Your task to perform on an android device: toggle priority inbox in the gmail app Image 0: 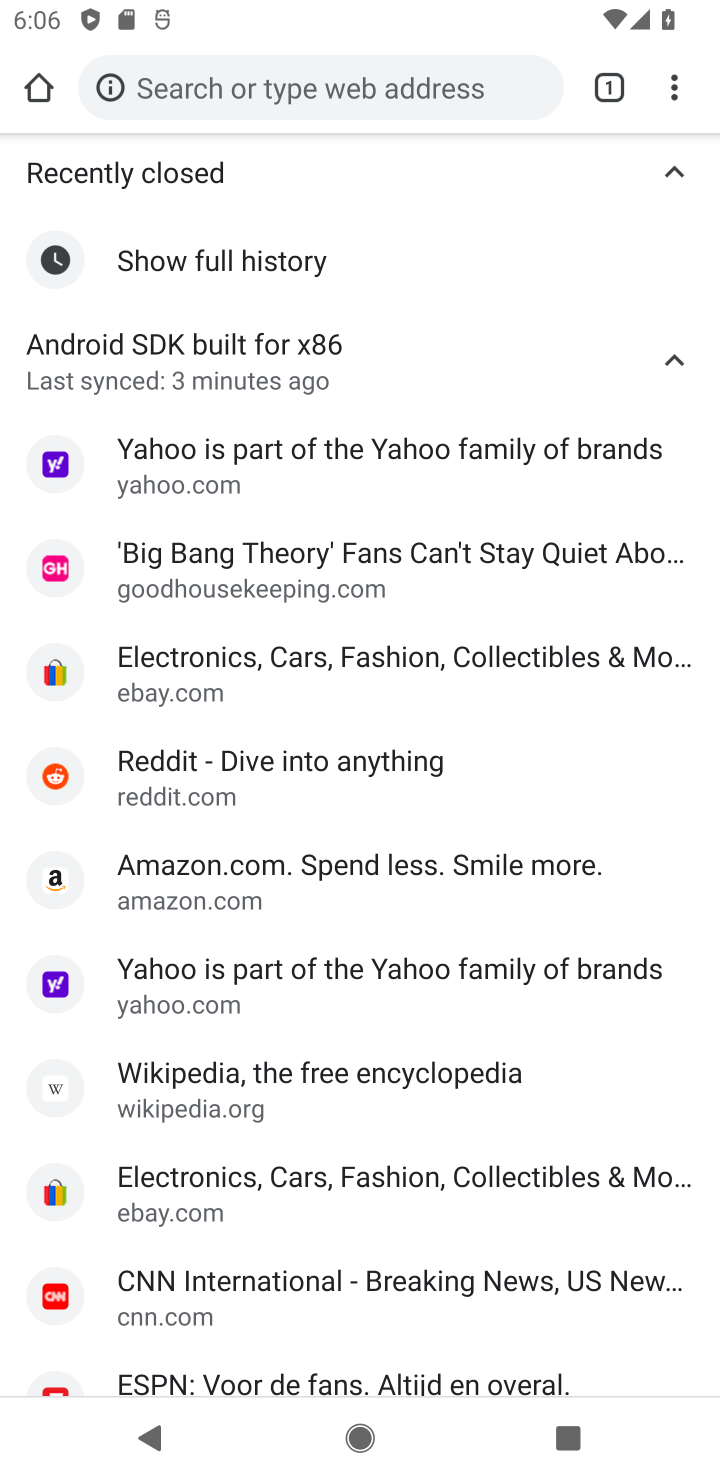
Step 0: press home button
Your task to perform on an android device: toggle priority inbox in the gmail app Image 1: 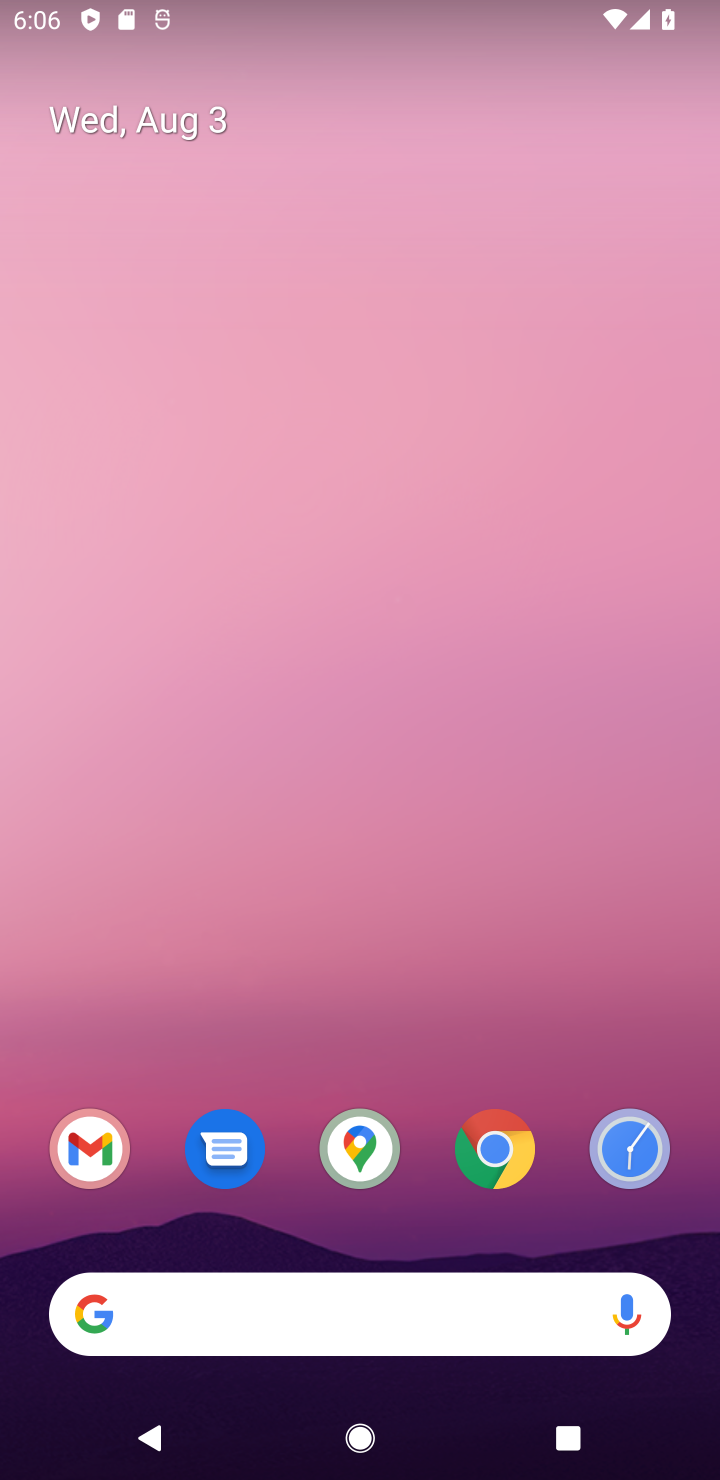
Step 1: click (94, 1144)
Your task to perform on an android device: toggle priority inbox in the gmail app Image 2: 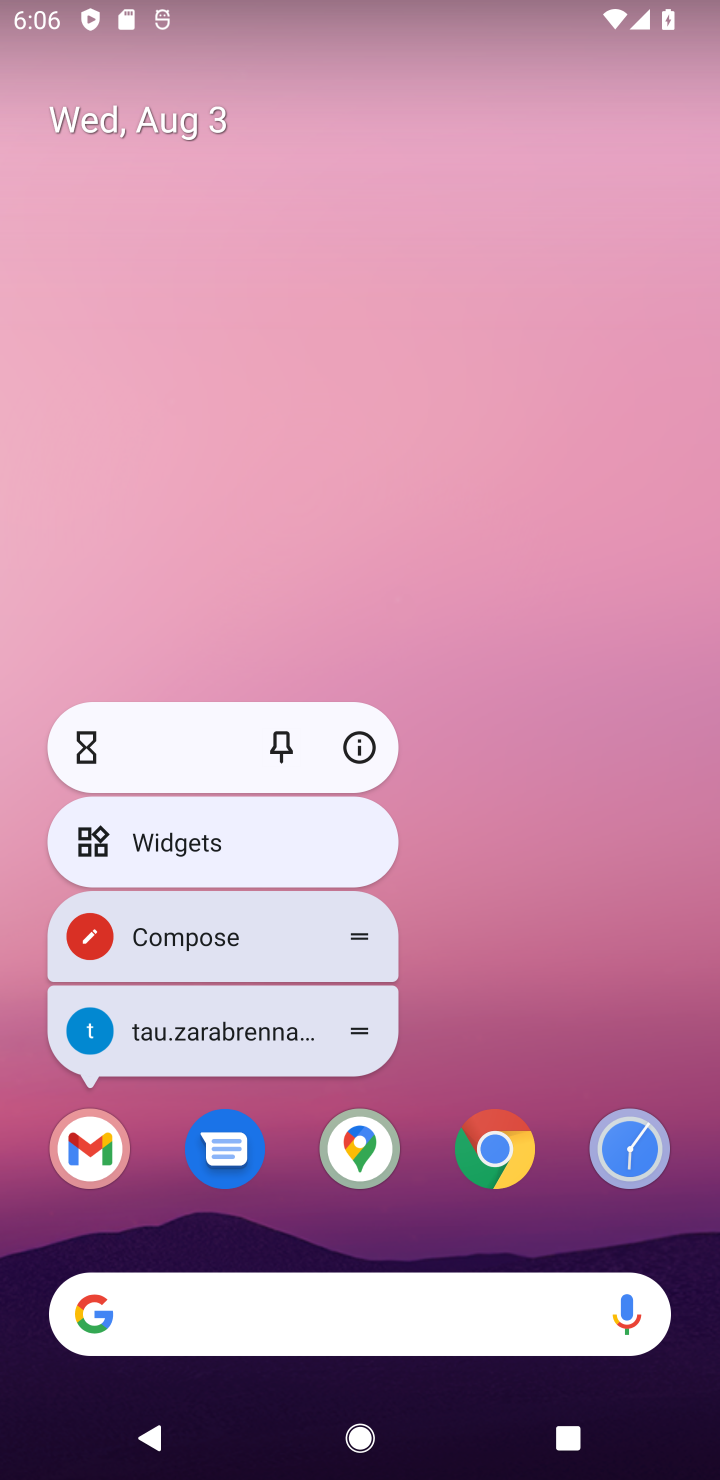
Step 2: click (96, 1146)
Your task to perform on an android device: toggle priority inbox in the gmail app Image 3: 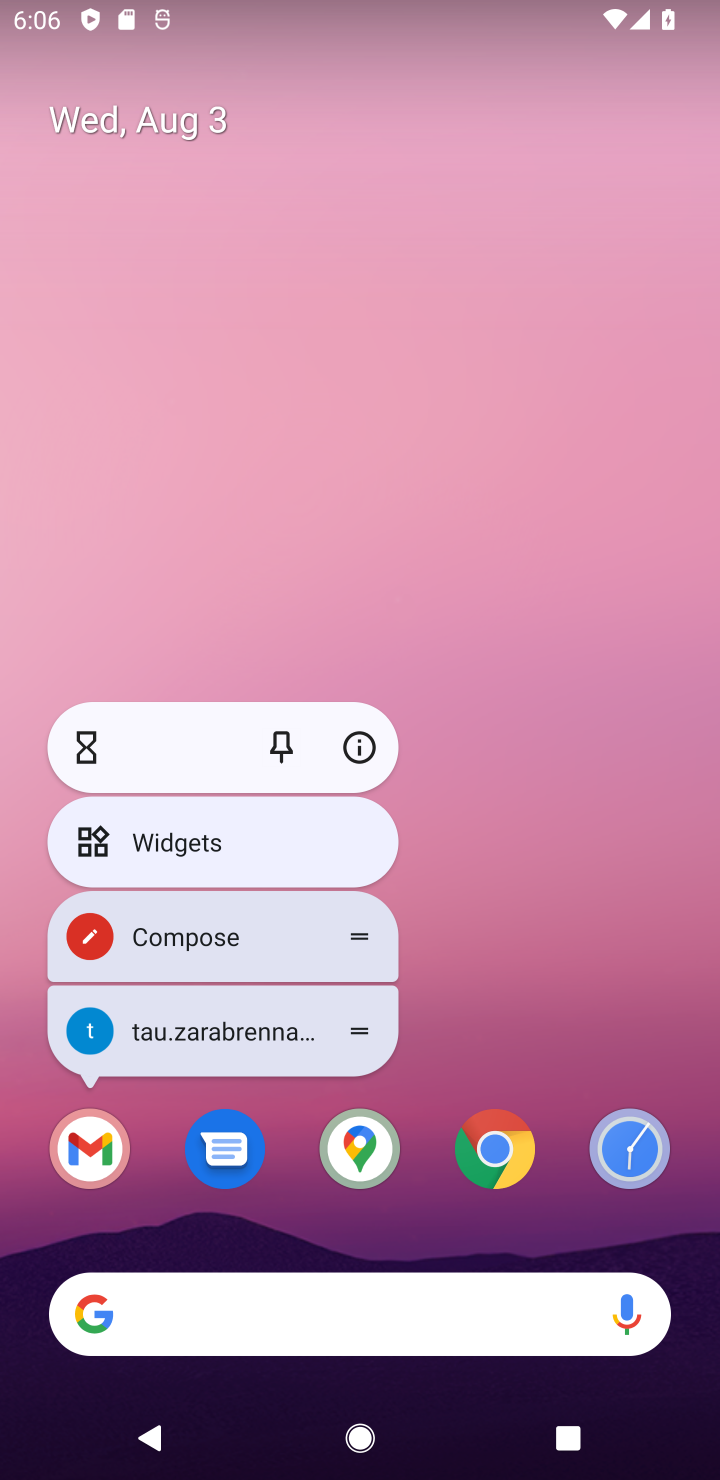
Step 3: click (96, 1146)
Your task to perform on an android device: toggle priority inbox in the gmail app Image 4: 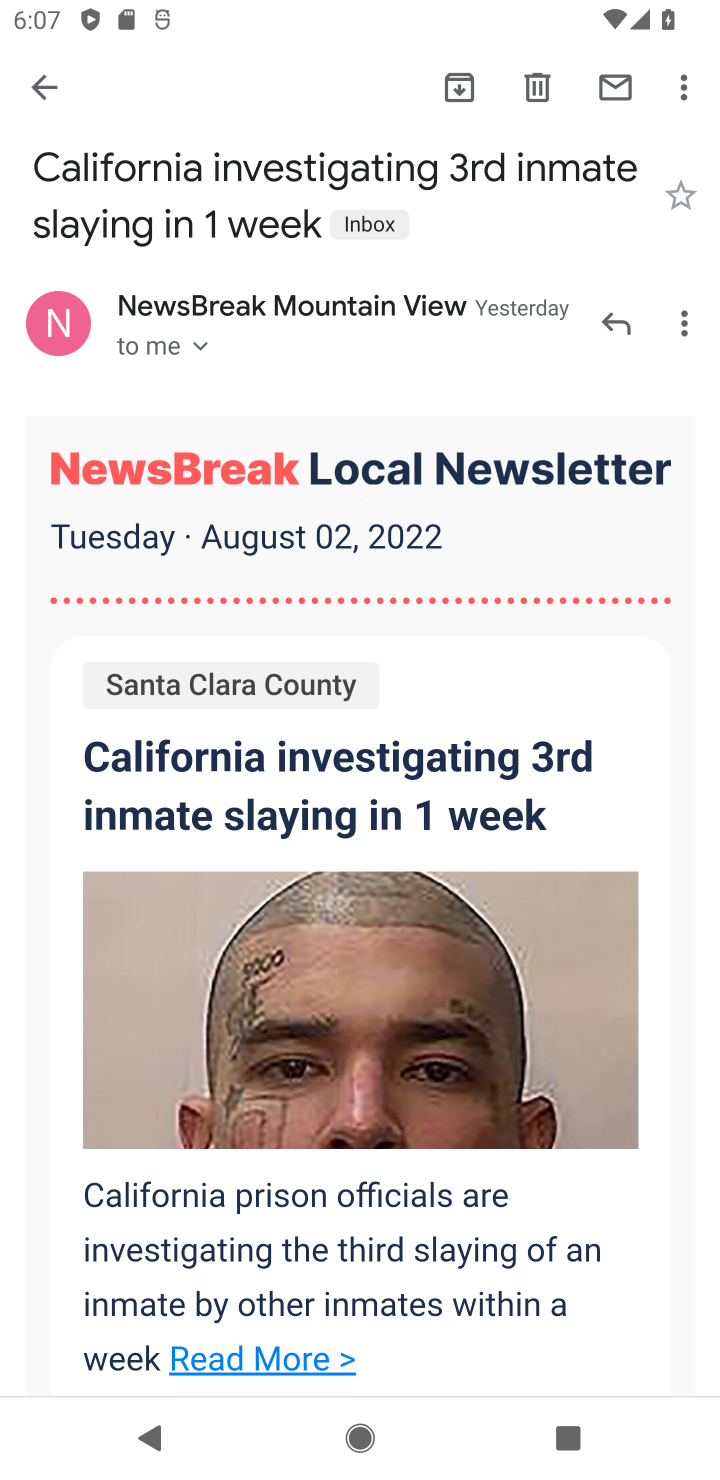
Step 4: click (35, 93)
Your task to perform on an android device: toggle priority inbox in the gmail app Image 5: 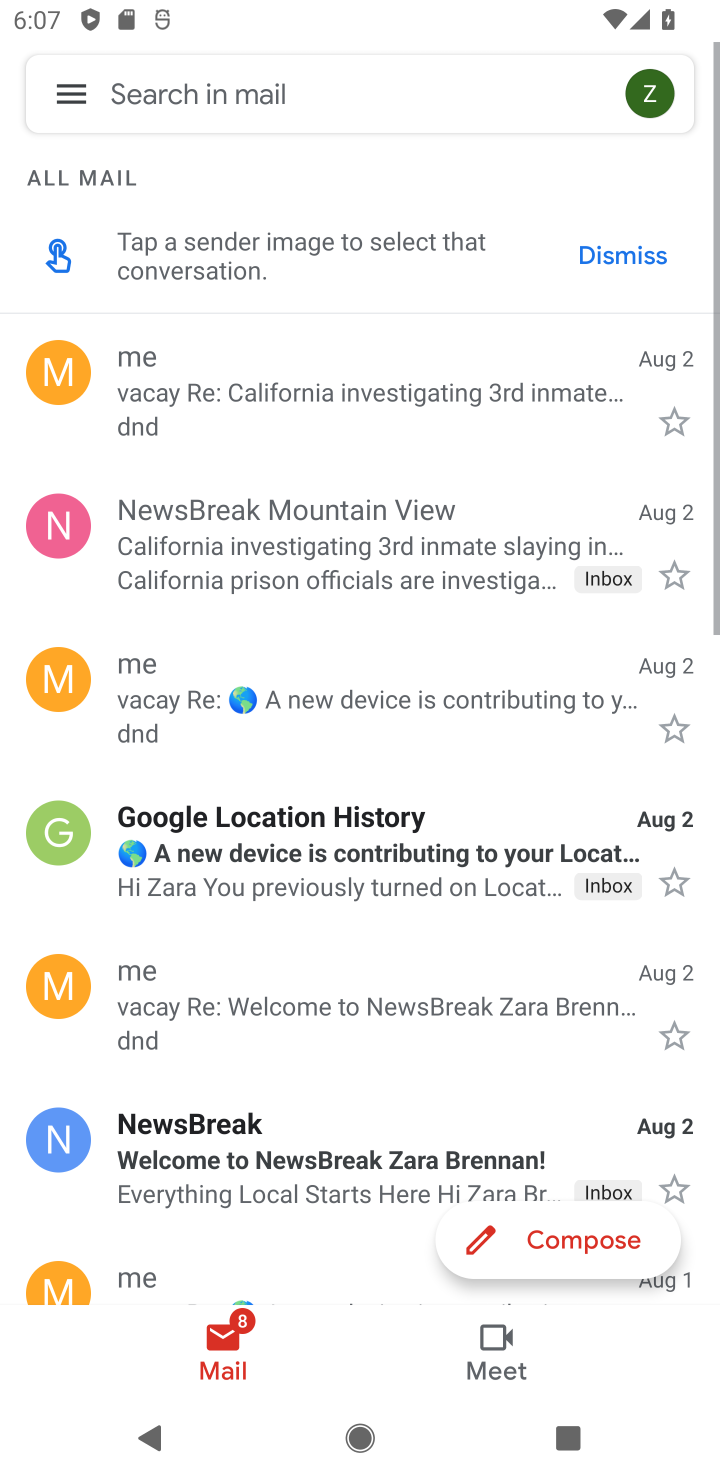
Step 5: click (96, 84)
Your task to perform on an android device: toggle priority inbox in the gmail app Image 6: 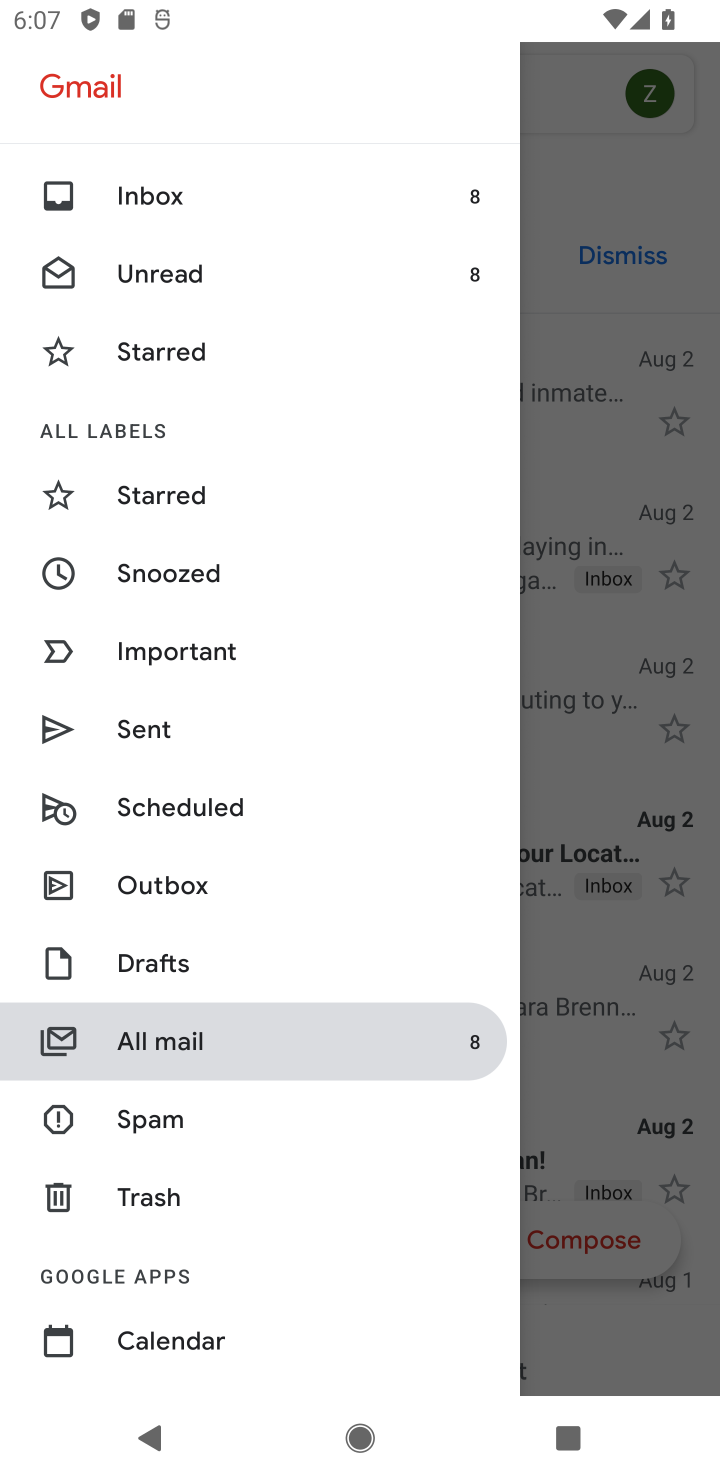
Step 6: drag from (255, 1173) to (332, 262)
Your task to perform on an android device: toggle priority inbox in the gmail app Image 7: 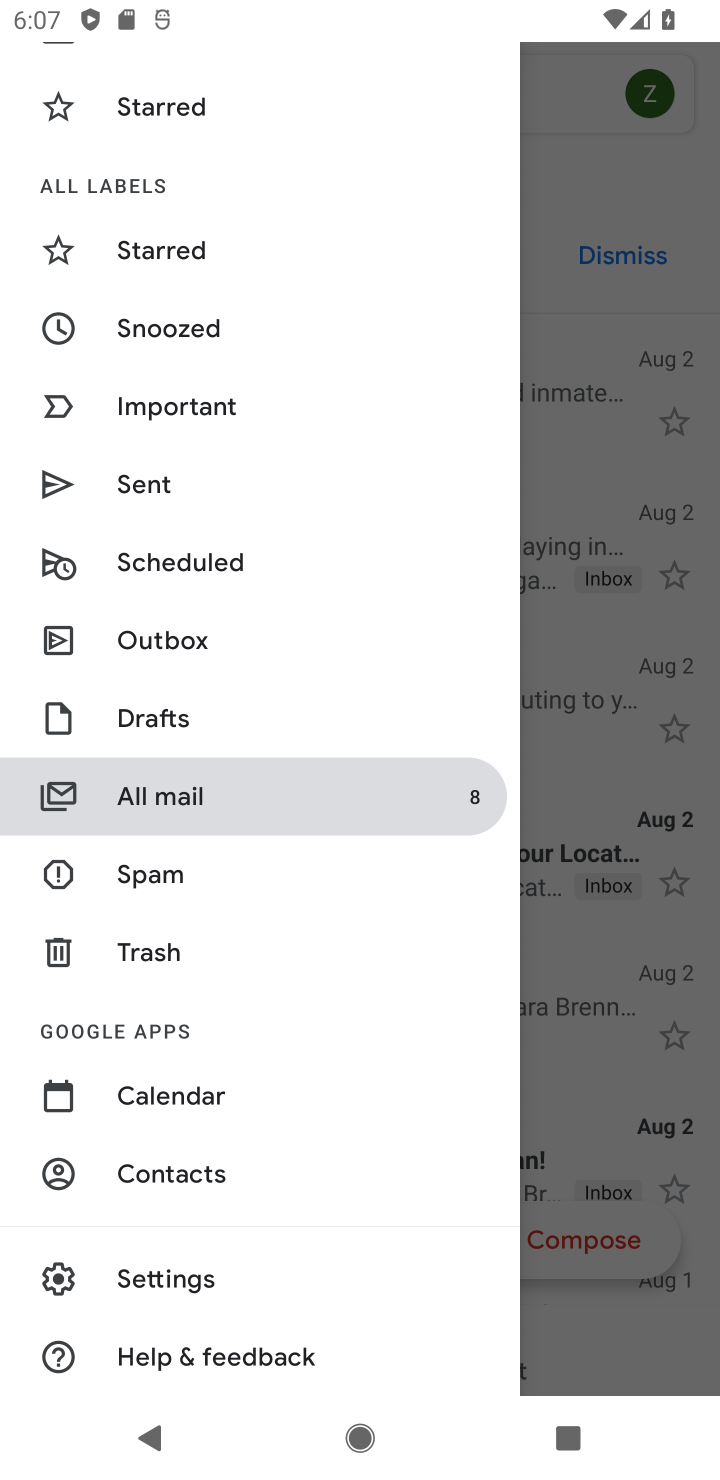
Step 7: click (179, 1286)
Your task to perform on an android device: toggle priority inbox in the gmail app Image 8: 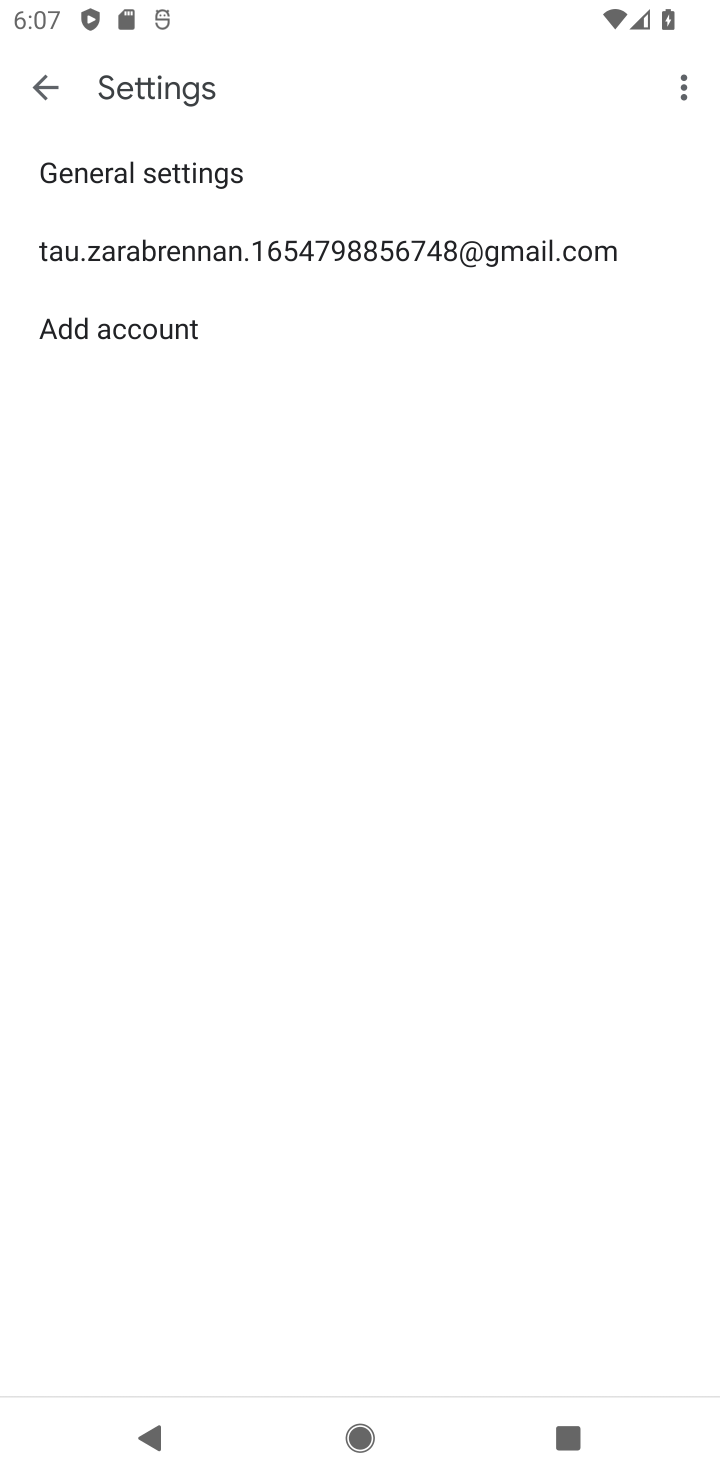
Step 8: click (186, 266)
Your task to perform on an android device: toggle priority inbox in the gmail app Image 9: 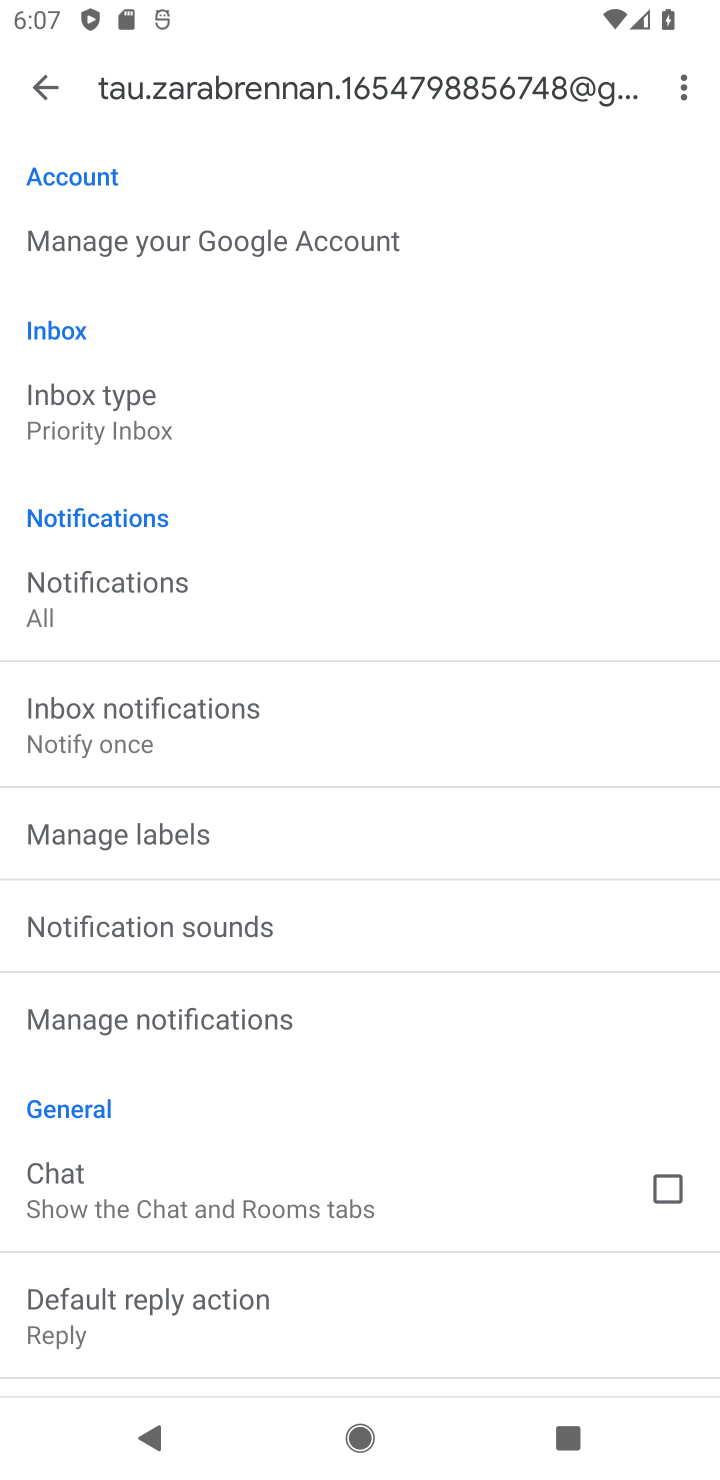
Step 9: click (126, 441)
Your task to perform on an android device: toggle priority inbox in the gmail app Image 10: 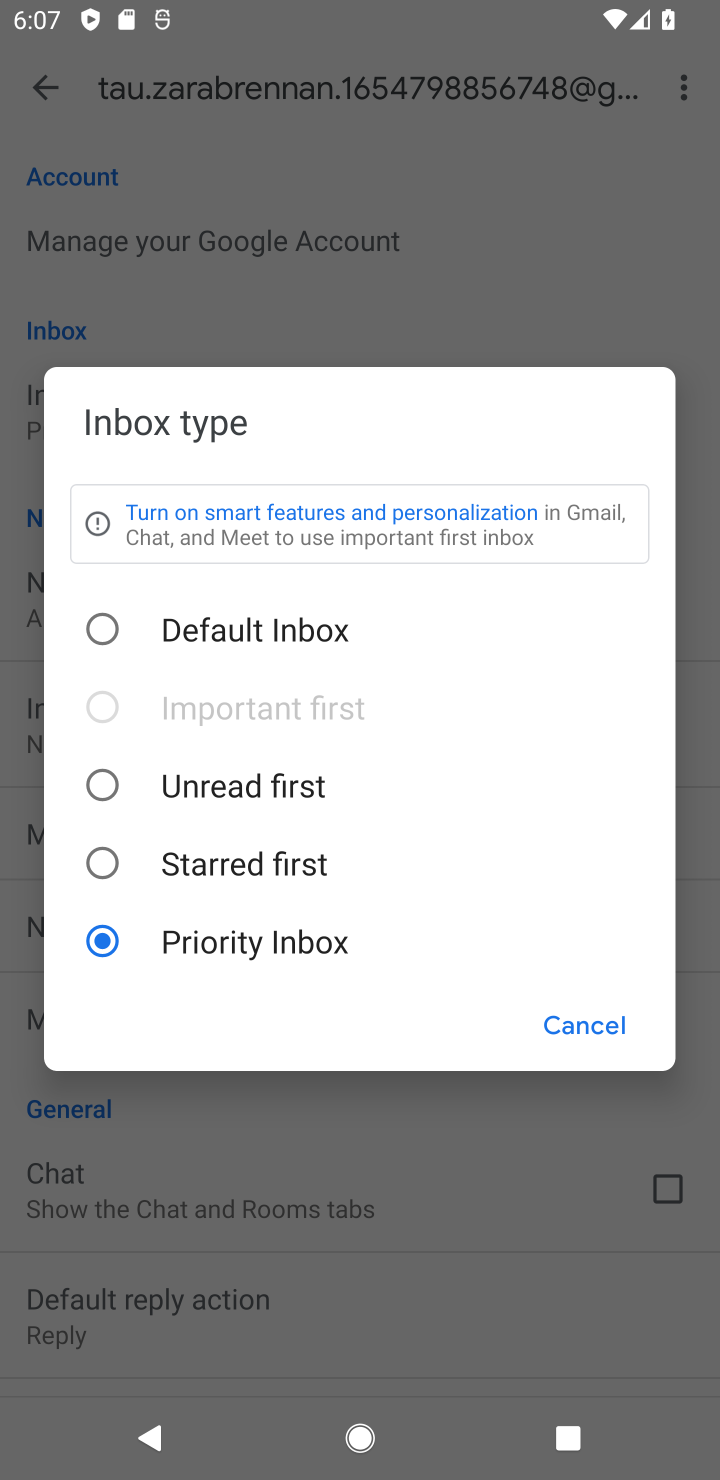
Step 10: click (219, 616)
Your task to perform on an android device: toggle priority inbox in the gmail app Image 11: 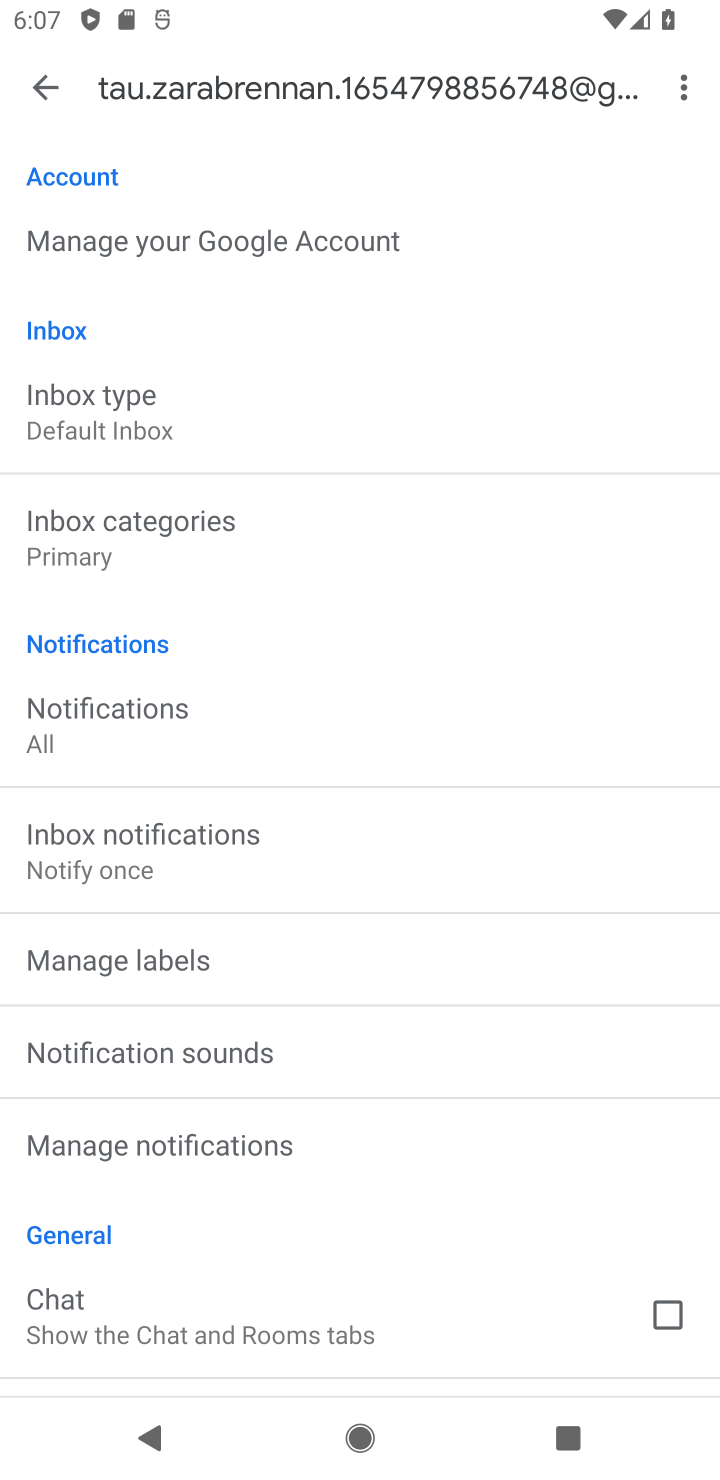
Step 11: task complete